Your task to perform on an android device: What's the news this month? Image 0: 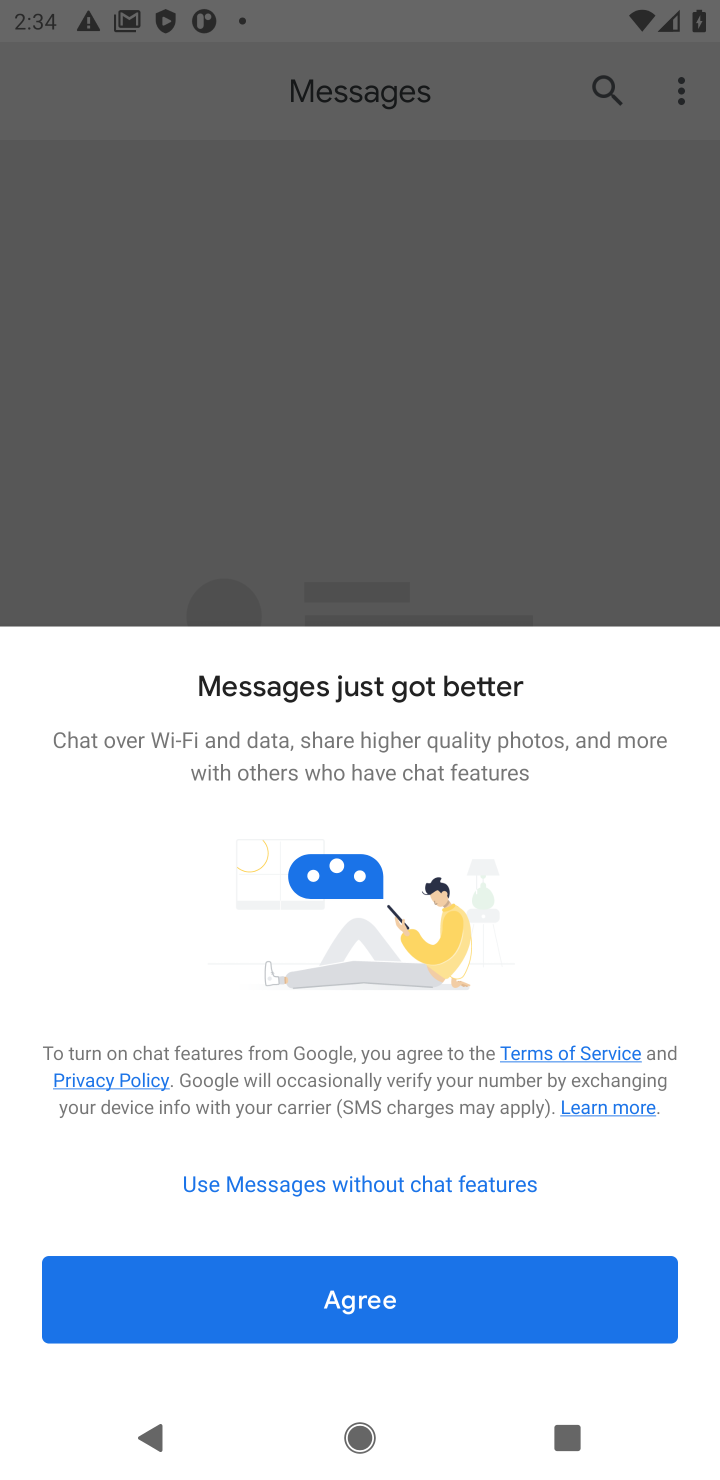
Step 0: press home button
Your task to perform on an android device: What's the news this month? Image 1: 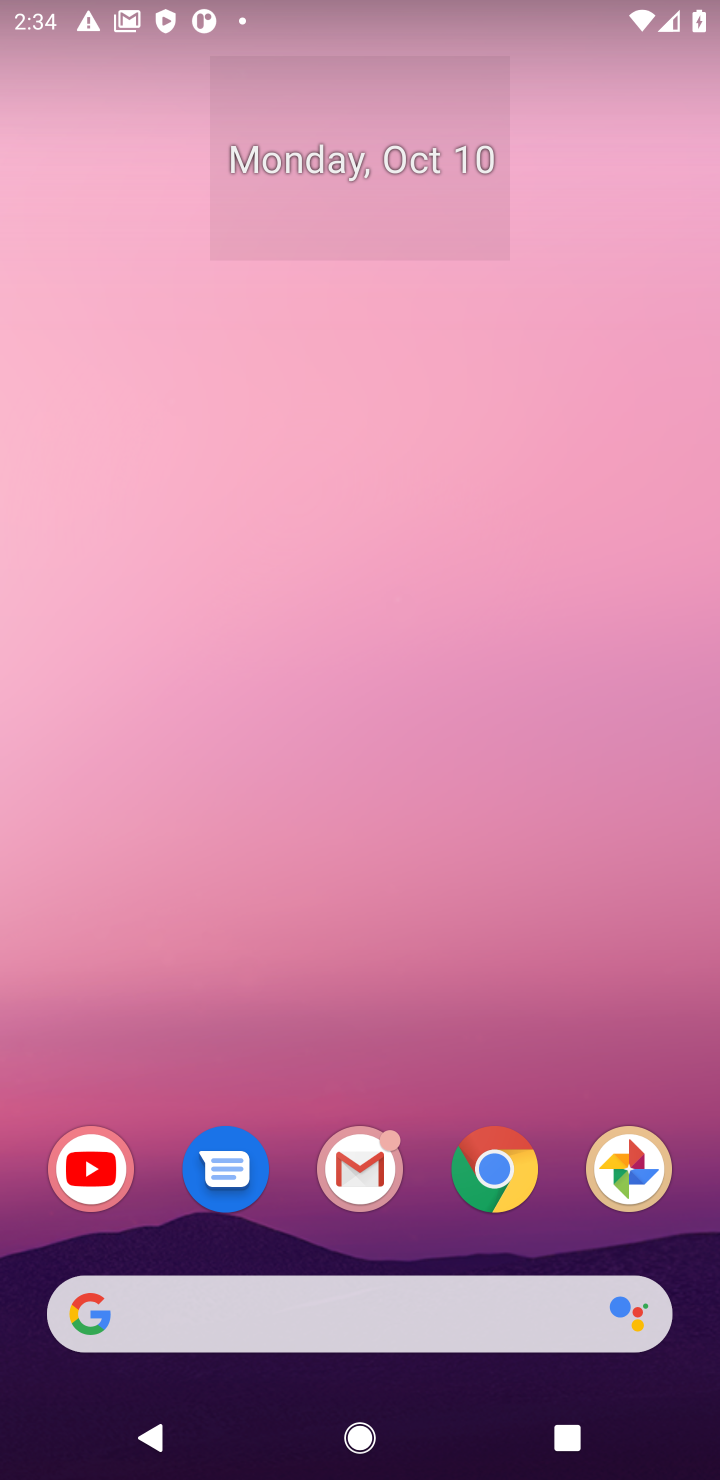
Step 1: drag from (168, 412) to (297, 2)
Your task to perform on an android device: What's the news this month? Image 2: 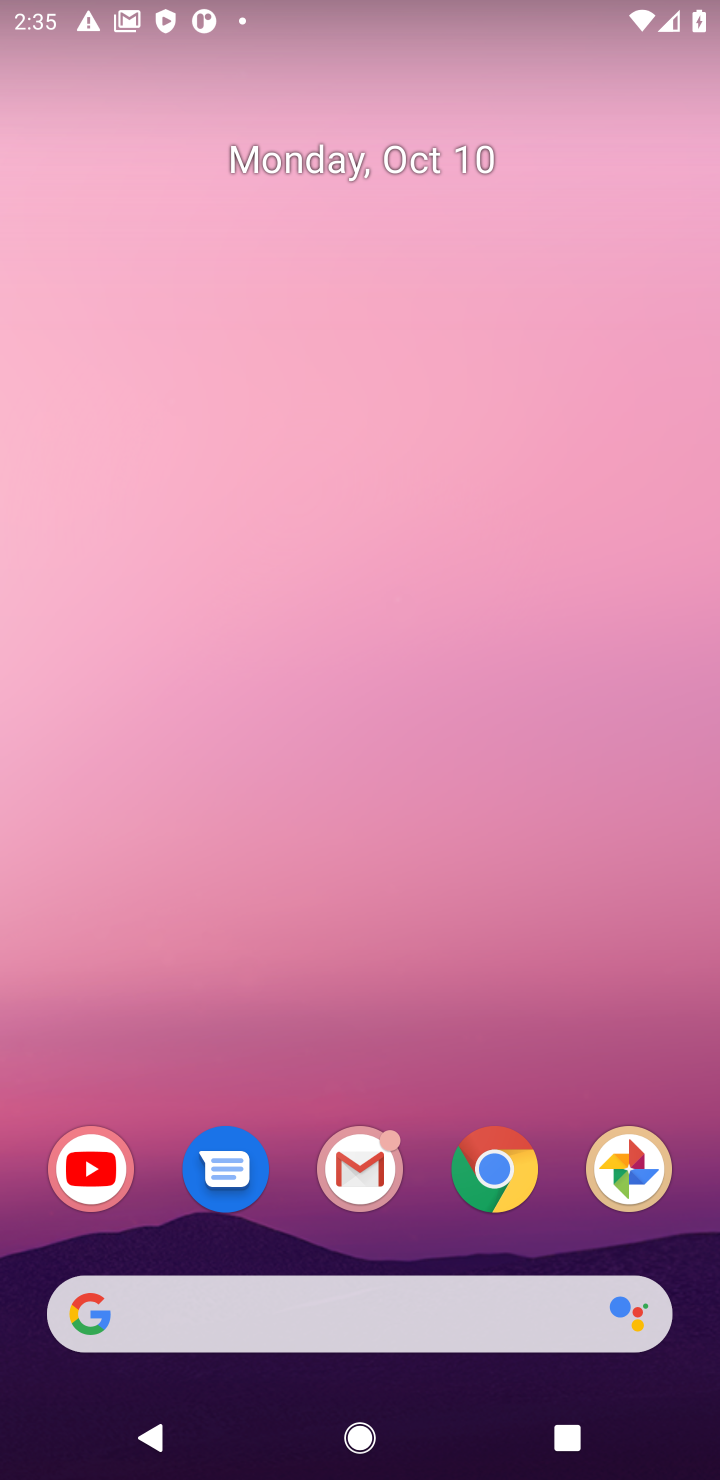
Step 2: drag from (384, 1016) to (656, 28)
Your task to perform on an android device: What's the news this month? Image 3: 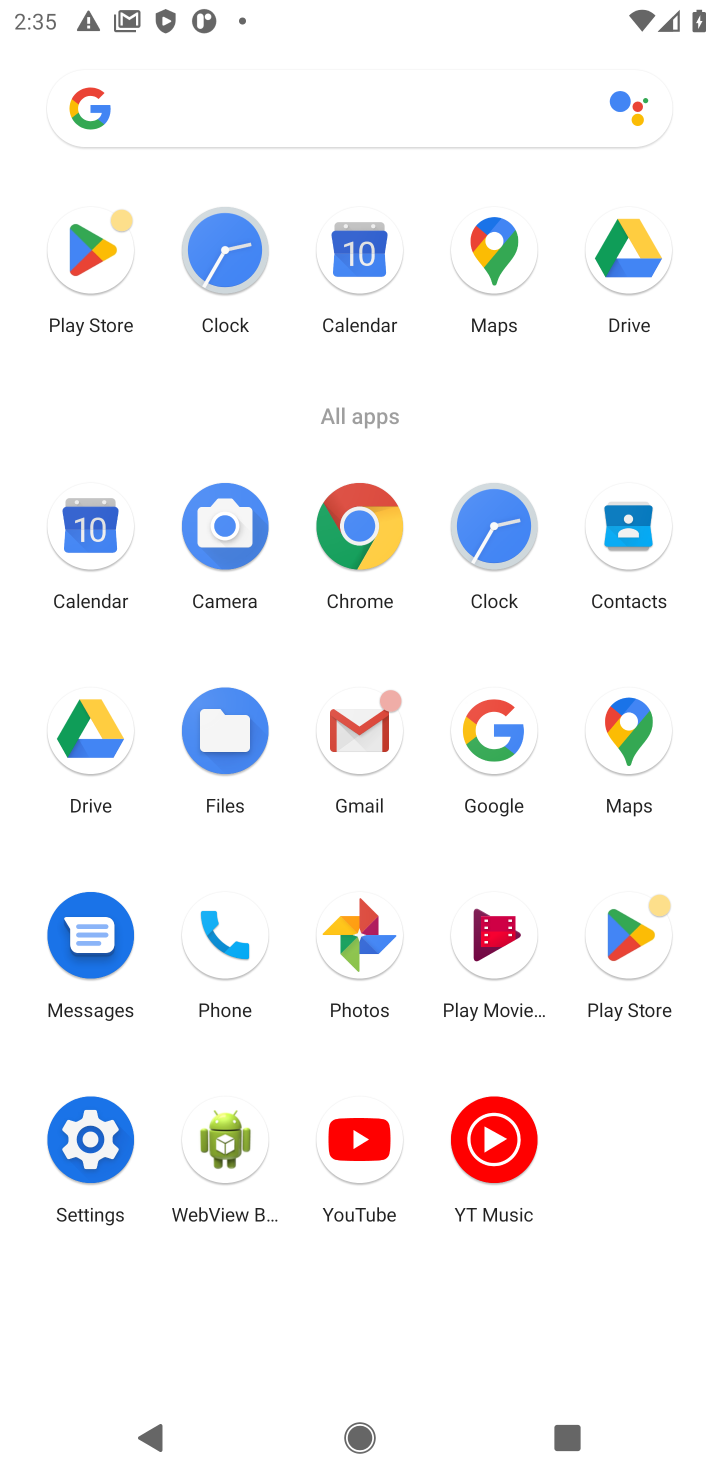
Step 3: click (387, 509)
Your task to perform on an android device: What's the news this month? Image 4: 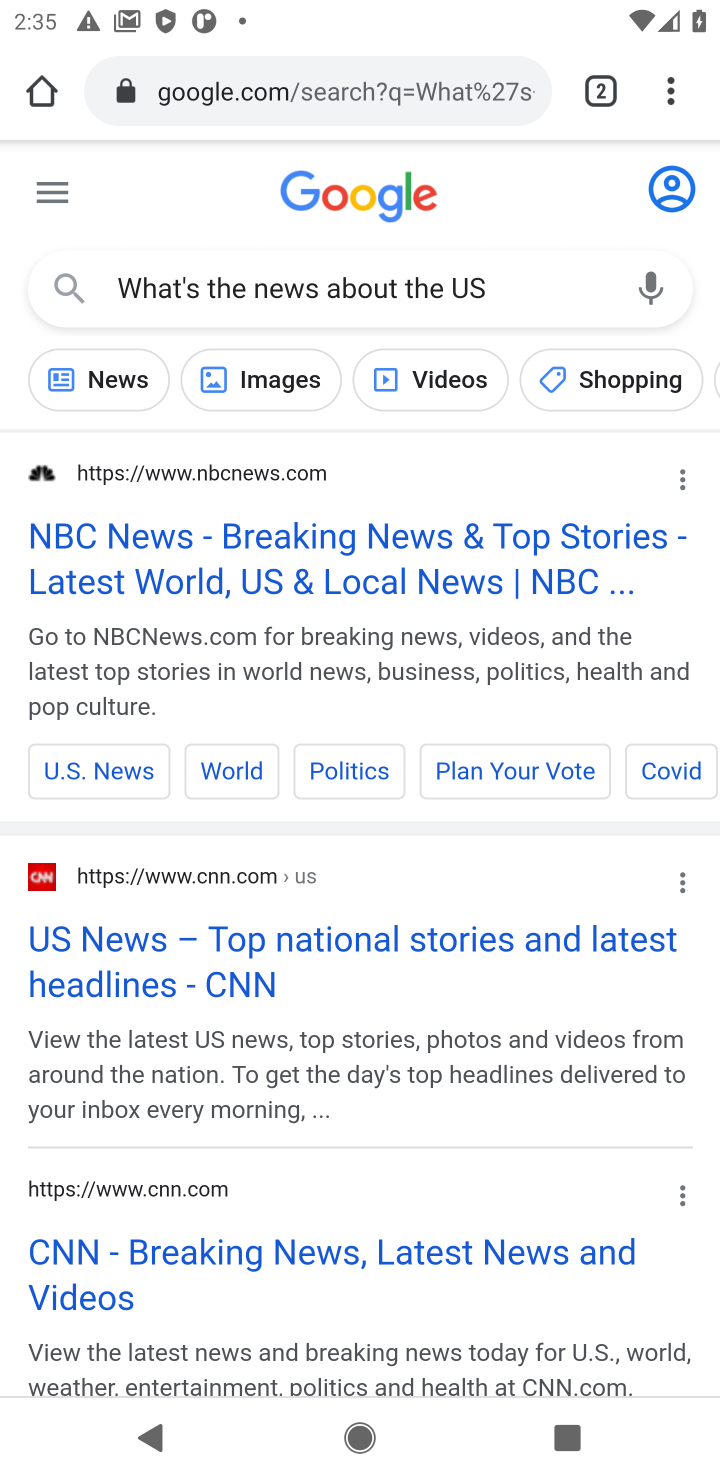
Step 4: press back button
Your task to perform on an android device: What's the news this month? Image 5: 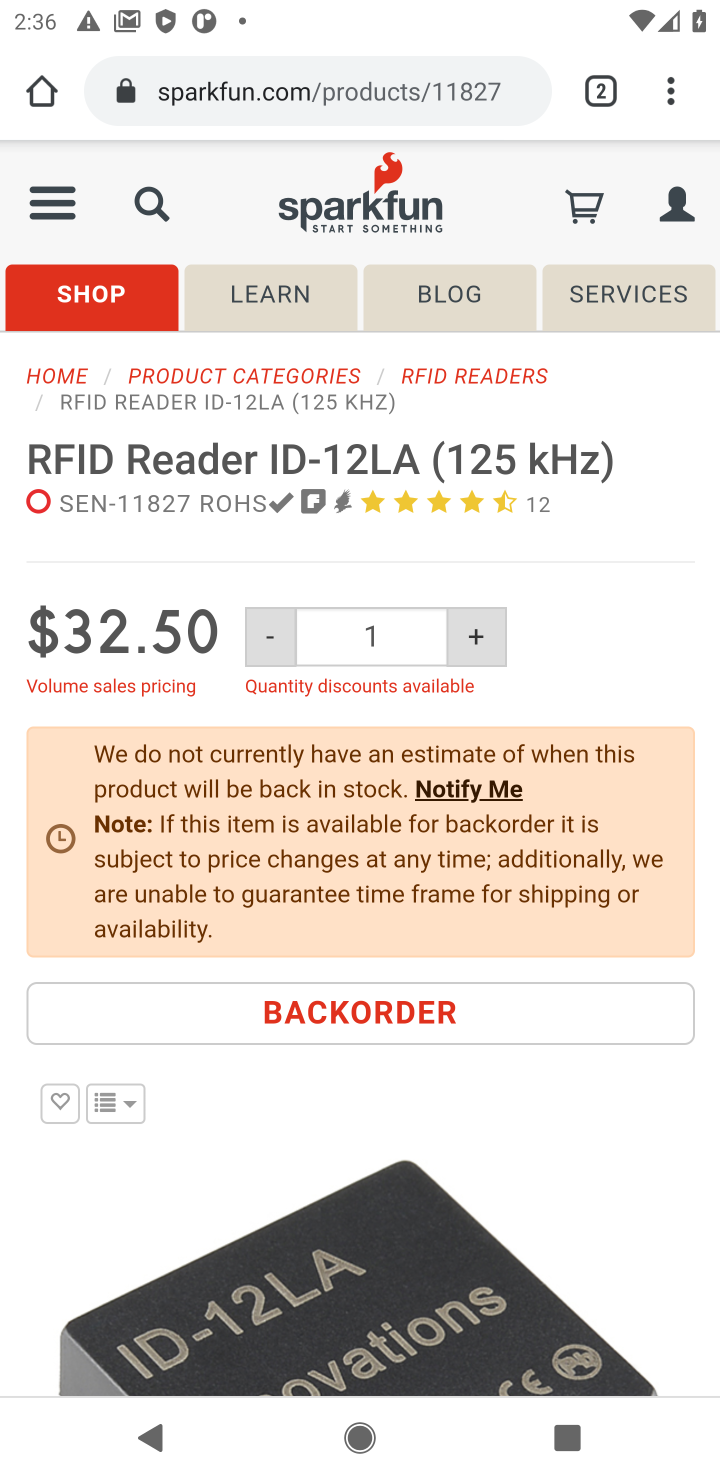
Step 5: press back button
Your task to perform on an android device: What's the news this month? Image 6: 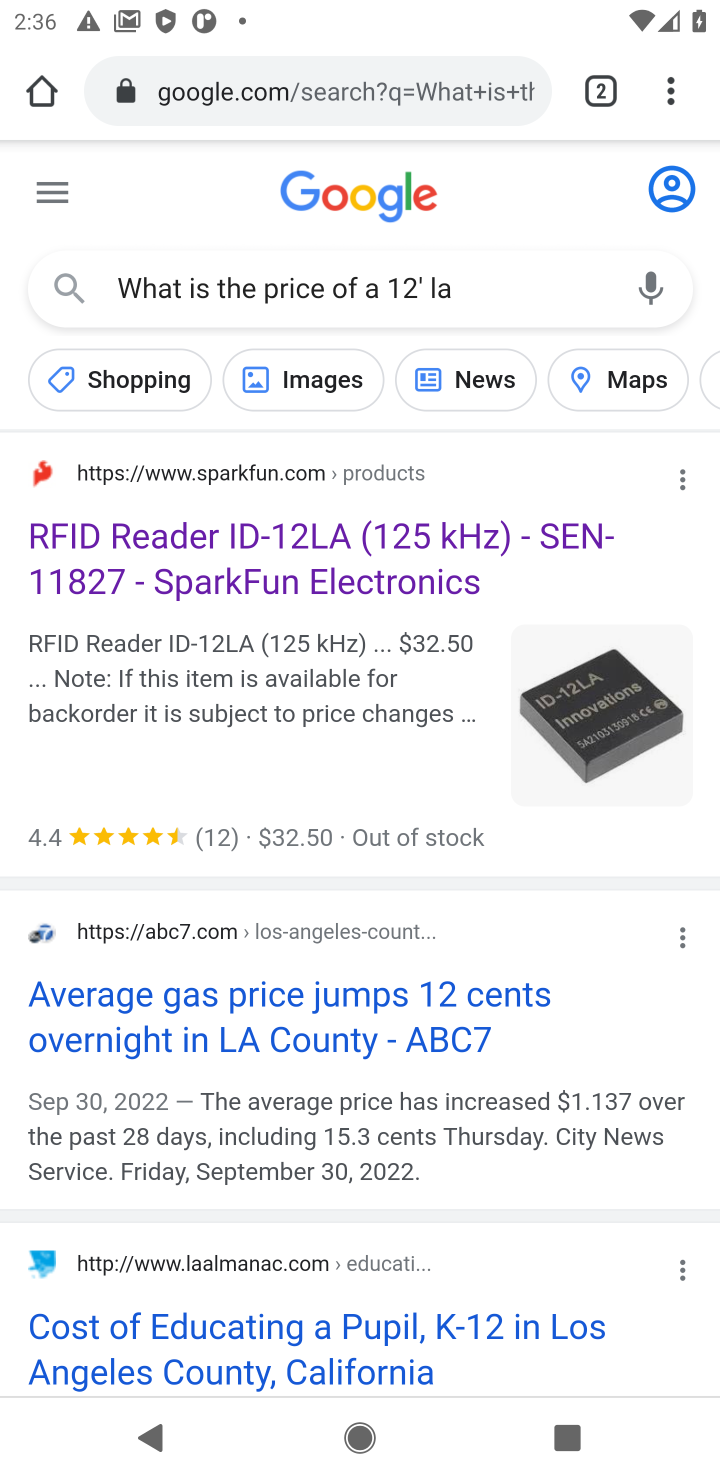
Step 6: press back button
Your task to perform on an android device: What's the news this month? Image 7: 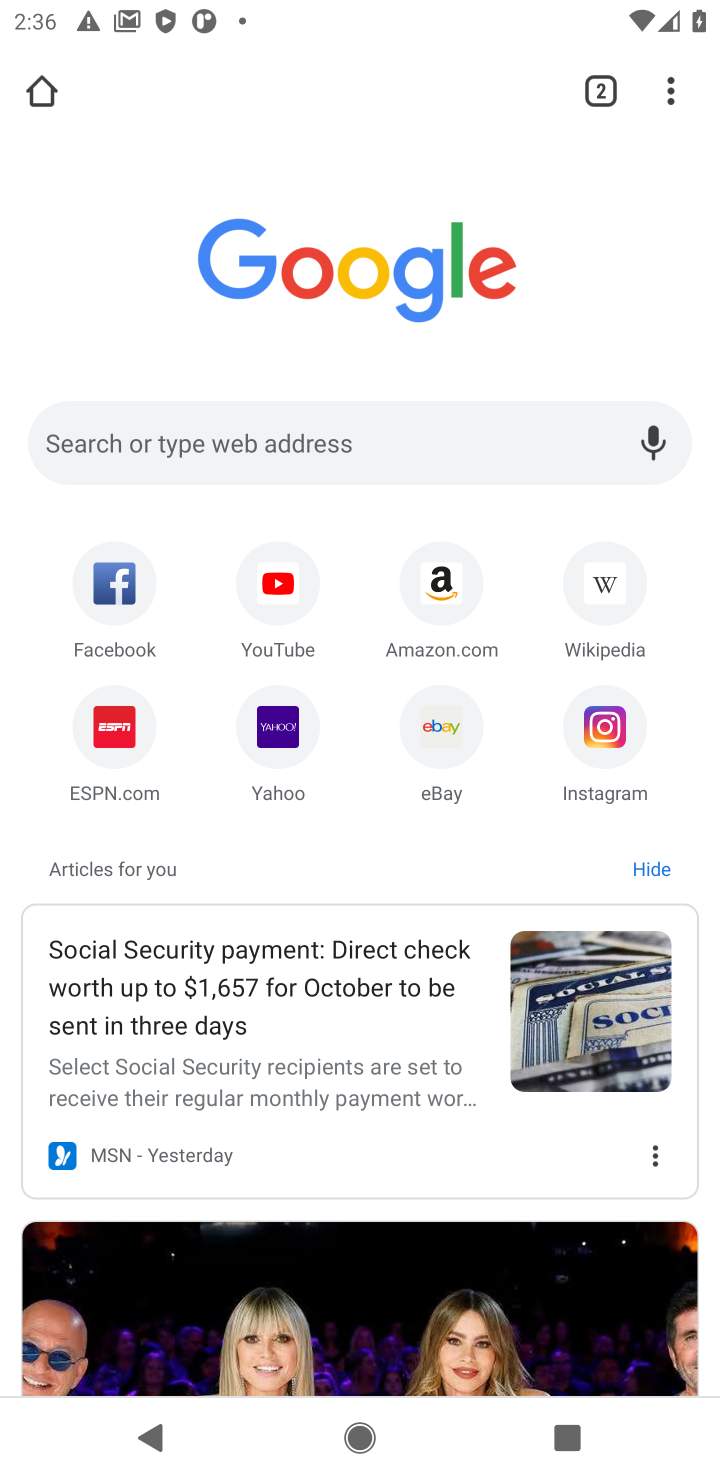
Step 7: drag from (405, 998) to (415, 427)
Your task to perform on an android device: What's the news this month? Image 8: 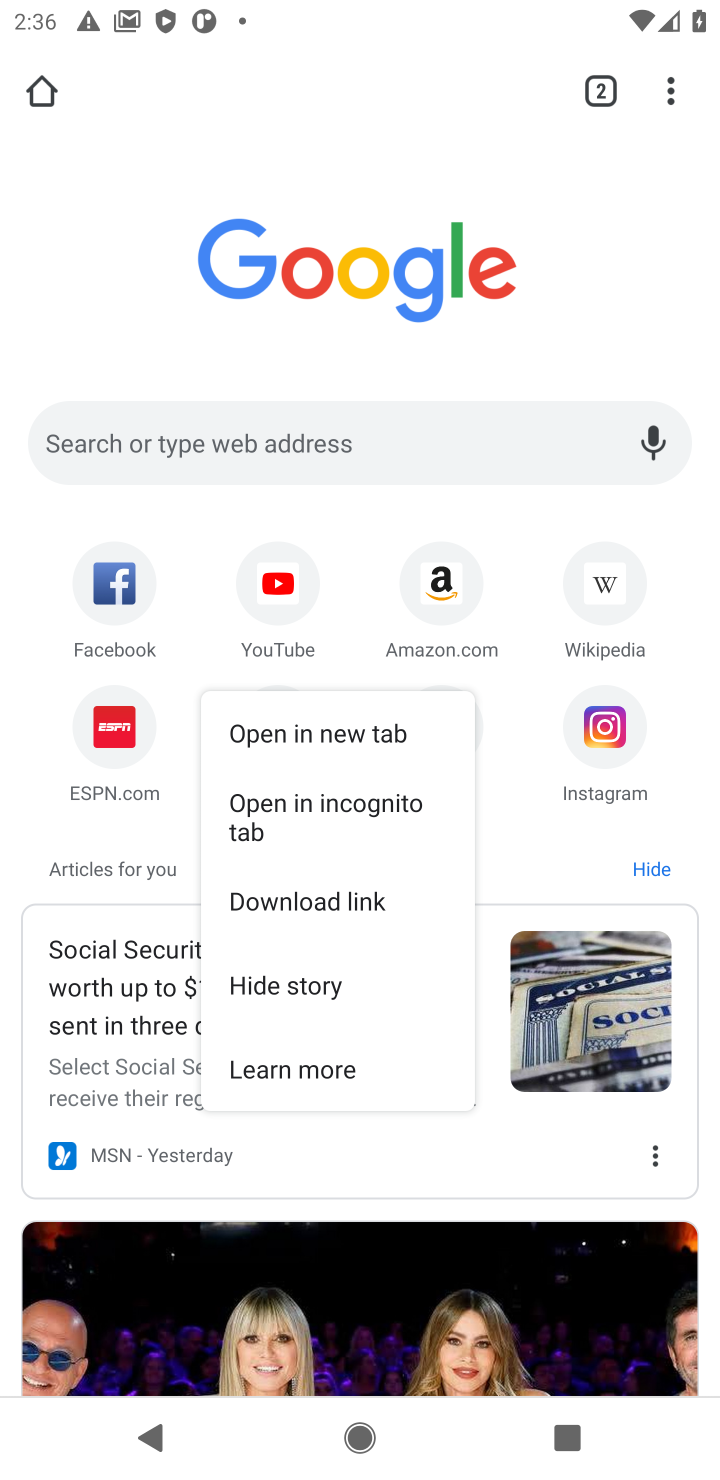
Step 8: drag from (404, 959) to (520, 332)
Your task to perform on an android device: What's the news this month? Image 9: 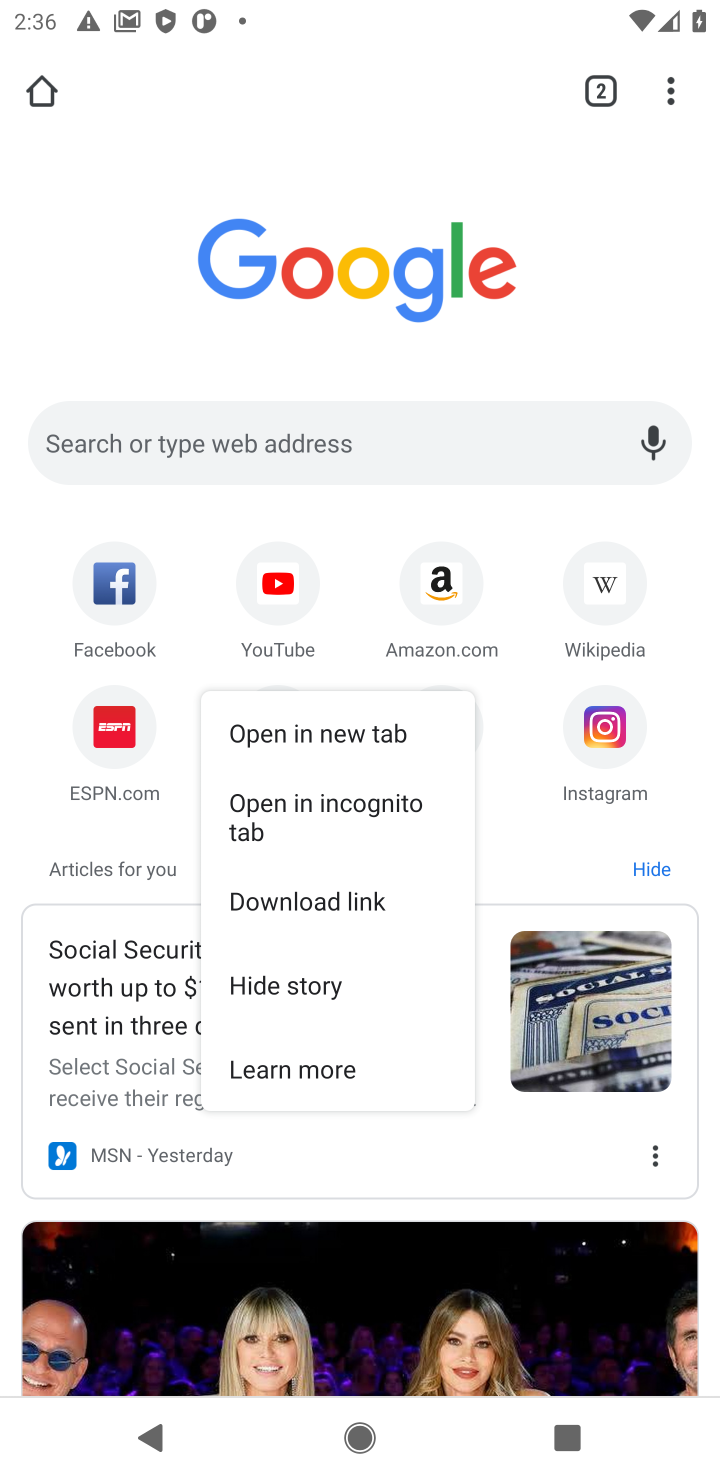
Step 9: click (552, 1168)
Your task to perform on an android device: What's the news this month? Image 10: 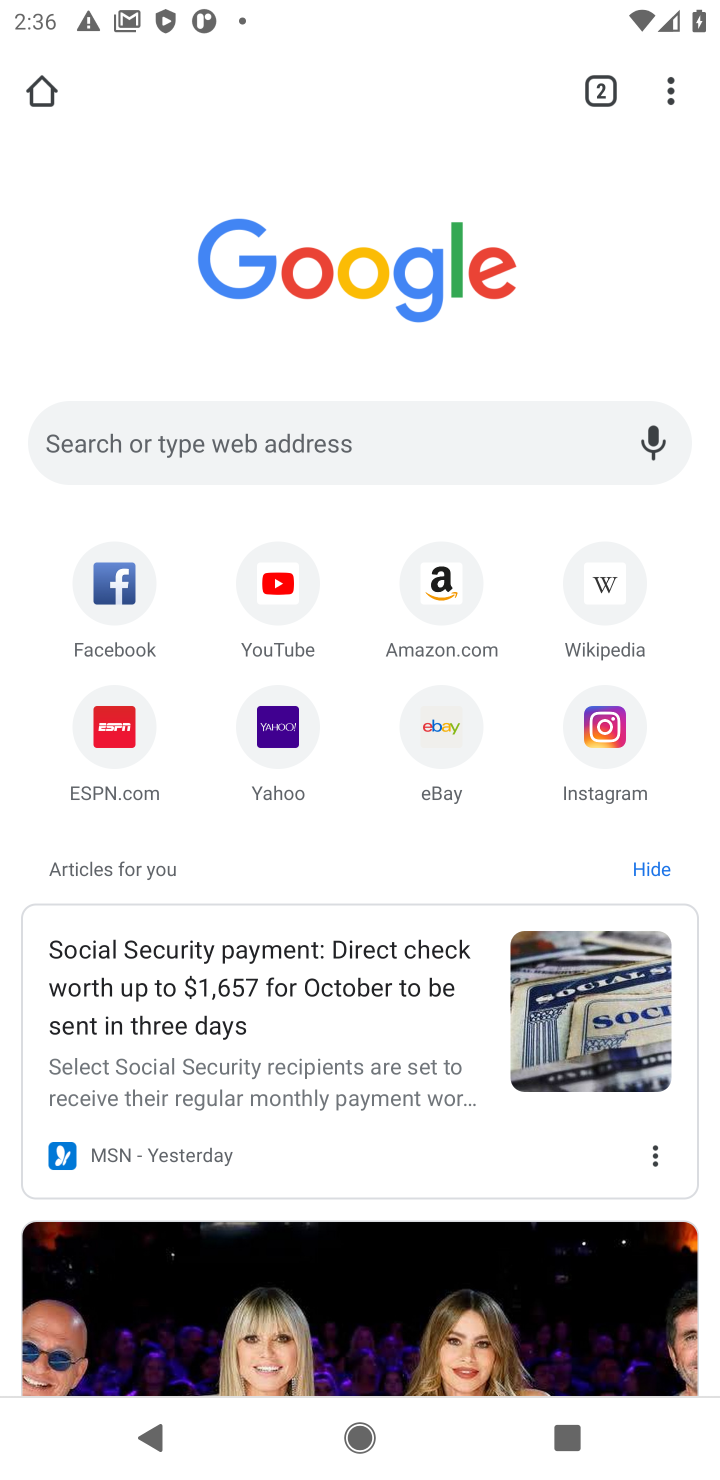
Step 10: click (573, 302)
Your task to perform on an android device: What's the news this month? Image 11: 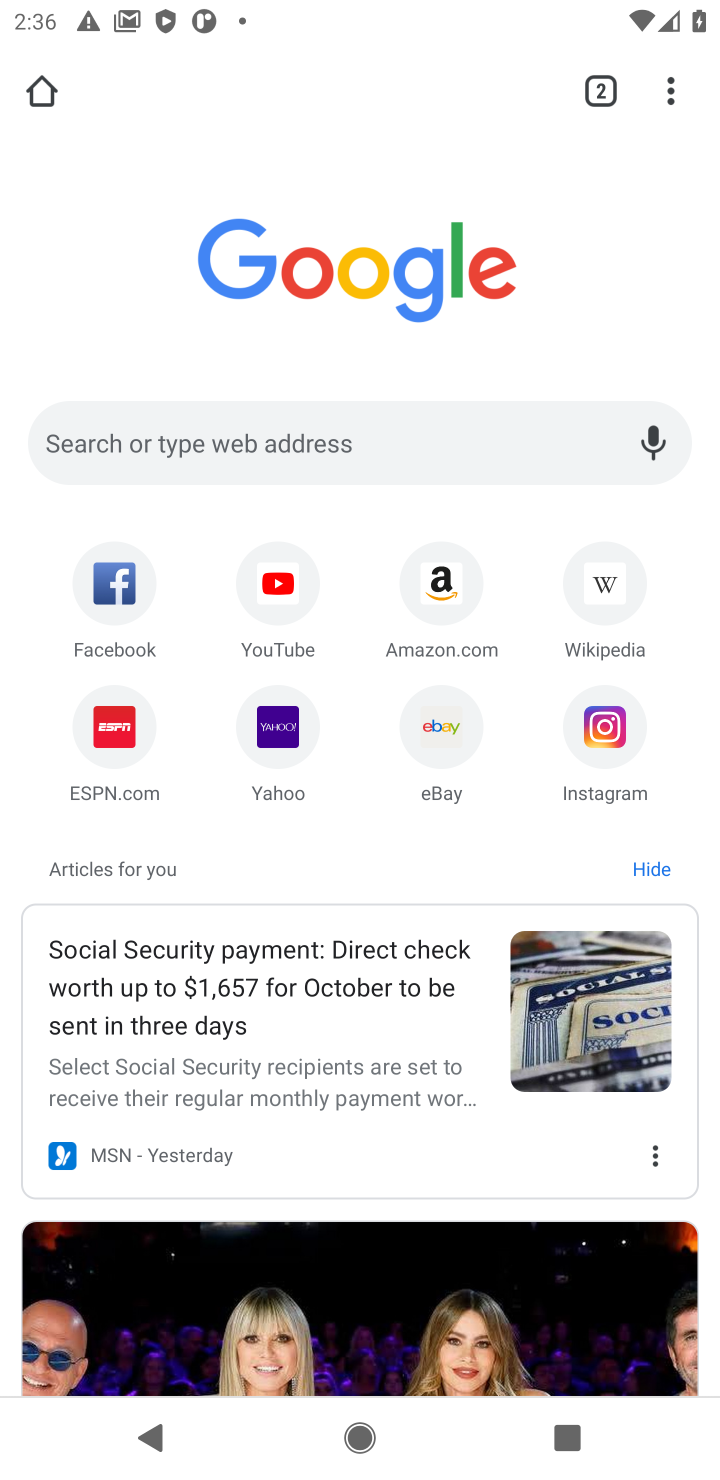
Step 11: task complete